Your task to perform on an android device: turn on javascript in the chrome app Image 0: 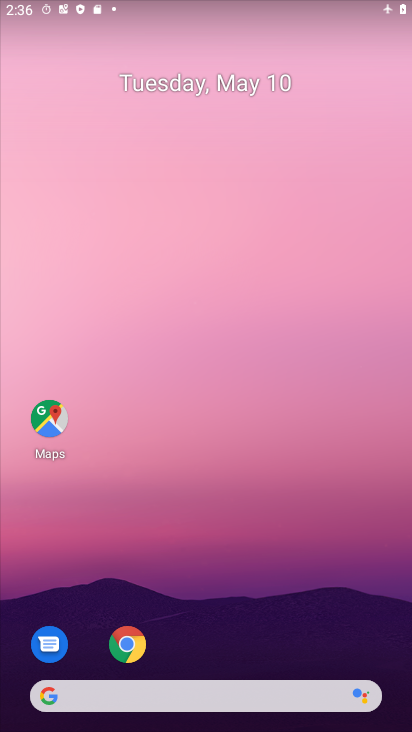
Step 0: drag from (238, 617) to (213, 264)
Your task to perform on an android device: turn on javascript in the chrome app Image 1: 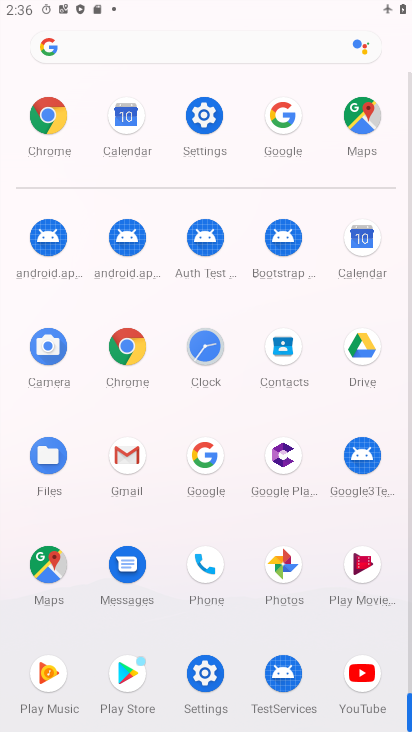
Step 1: drag from (212, 632) to (193, 215)
Your task to perform on an android device: turn on javascript in the chrome app Image 2: 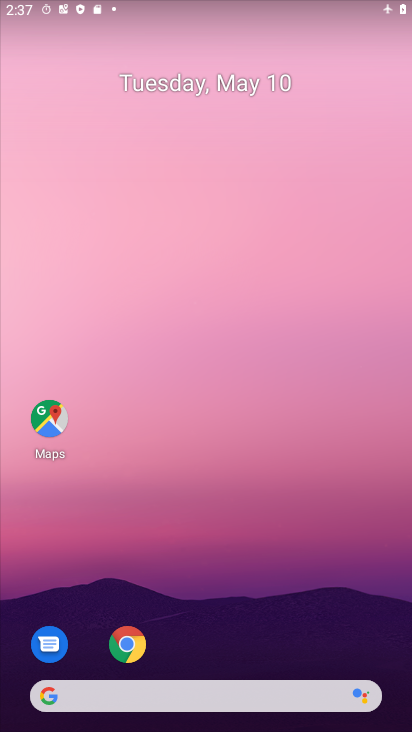
Step 2: drag from (274, 607) to (309, 258)
Your task to perform on an android device: turn on javascript in the chrome app Image 3: 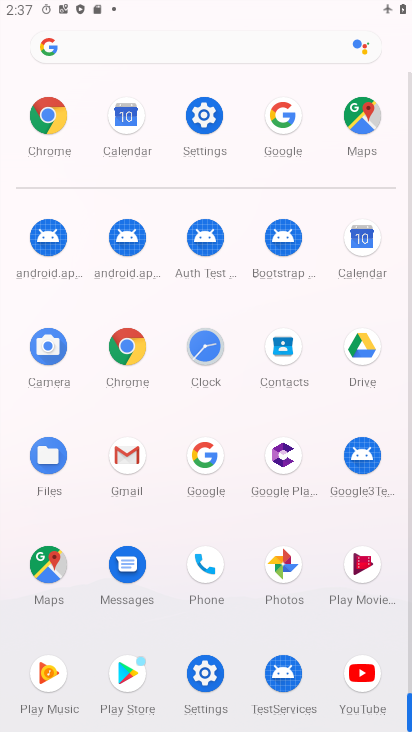
Step 3: click (138, 367)
Your task to perform on an android device: turn on javascript in the chrome app Image 4: 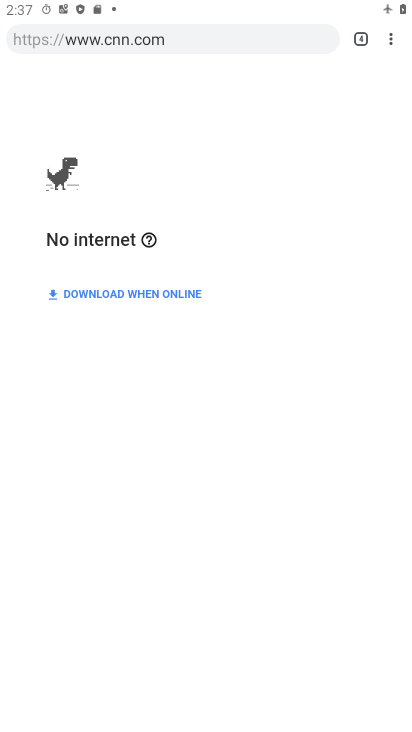
Step 4: click (386, 41)
Your task to perform on an android device: turn on javascript in the chrome app Image 5: 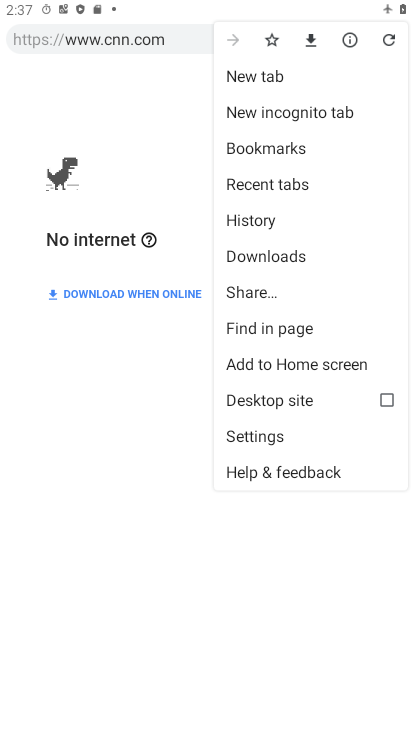
Step 5: click (290, 436)
Your task to perform on an android device: turn on javascript in the chrome app Image 6: 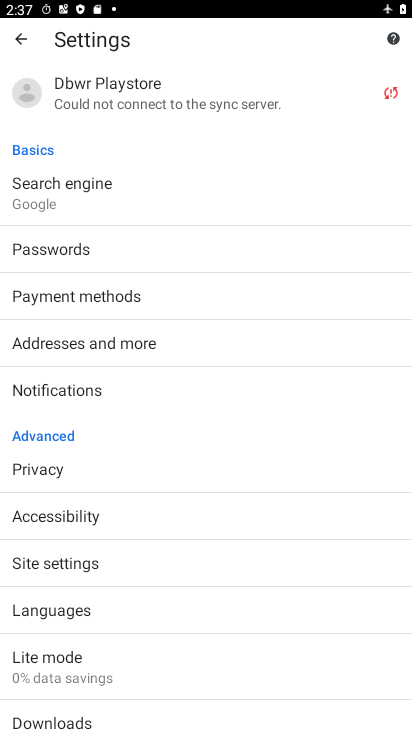
Step 6: click (86, 577)
Your task to perform on an android device: turn on javascript in the chrome app Image 7: 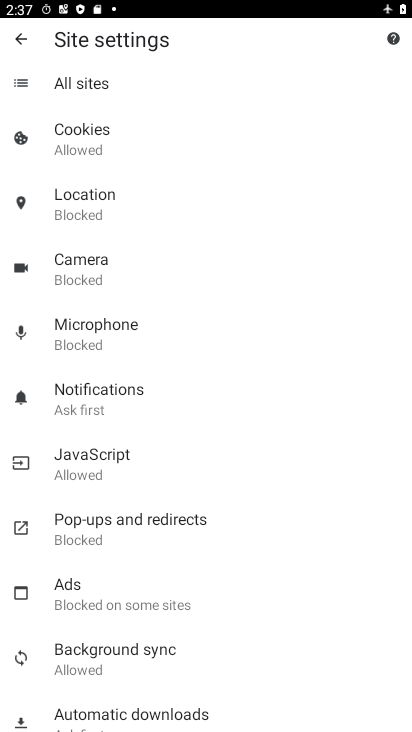
Step 7: click (150, 477)
Your task to perform on an android device: turn on javascript in the chrome app Image 8: 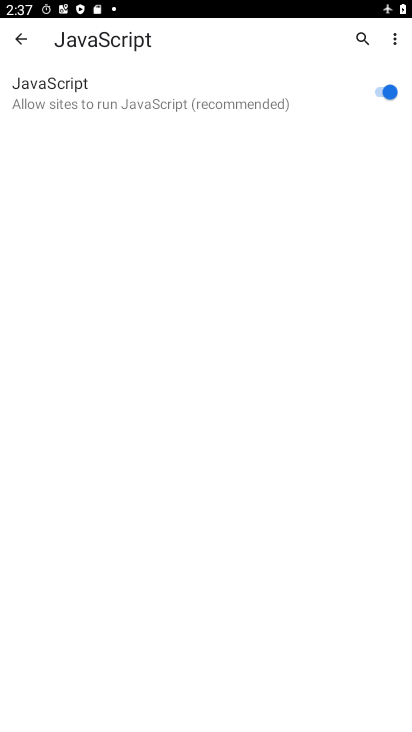
Step 8: task complete